Your task to perform on an android device: install app "PUBG MOBILE" Image 0: 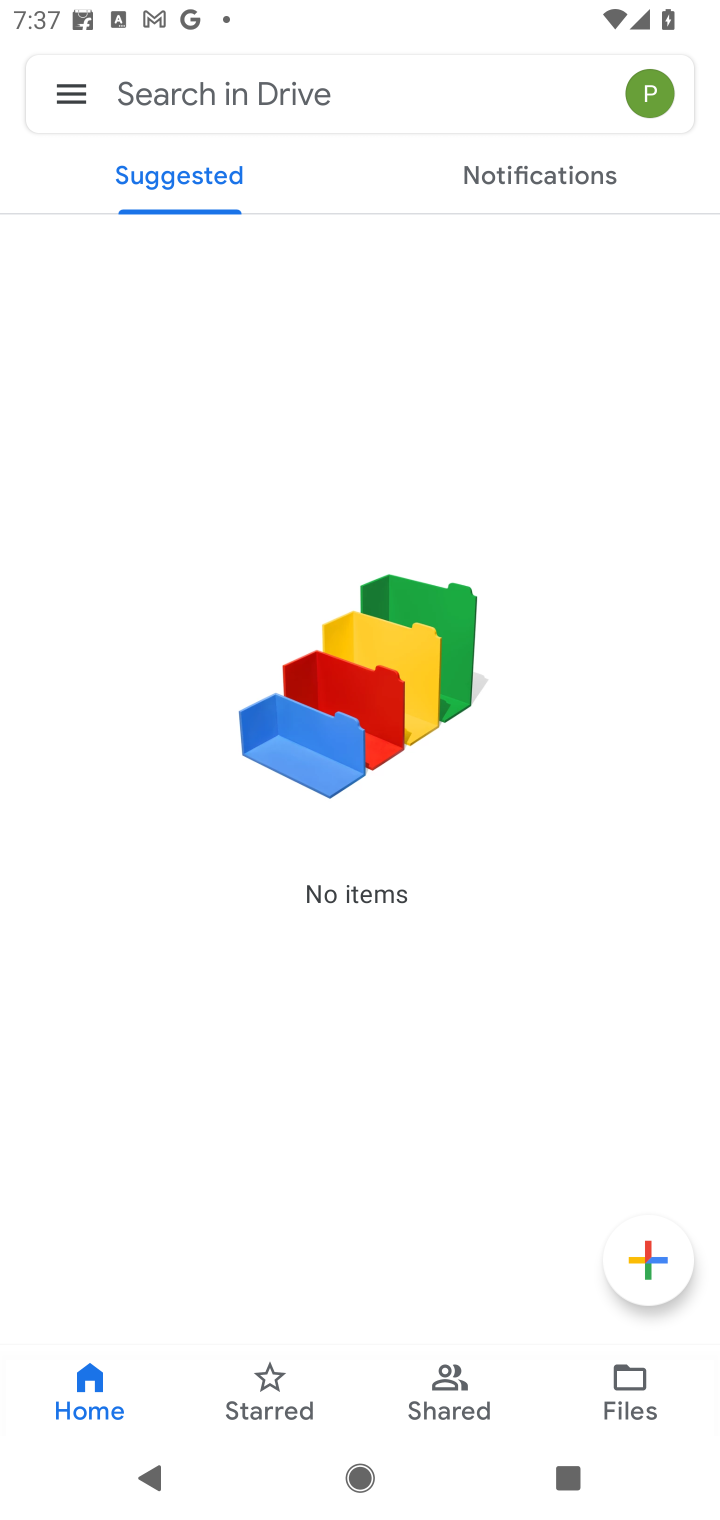
Step 0: press home button
Your task to perform on an android device: install app "PUBG MOBILE" Image 1: 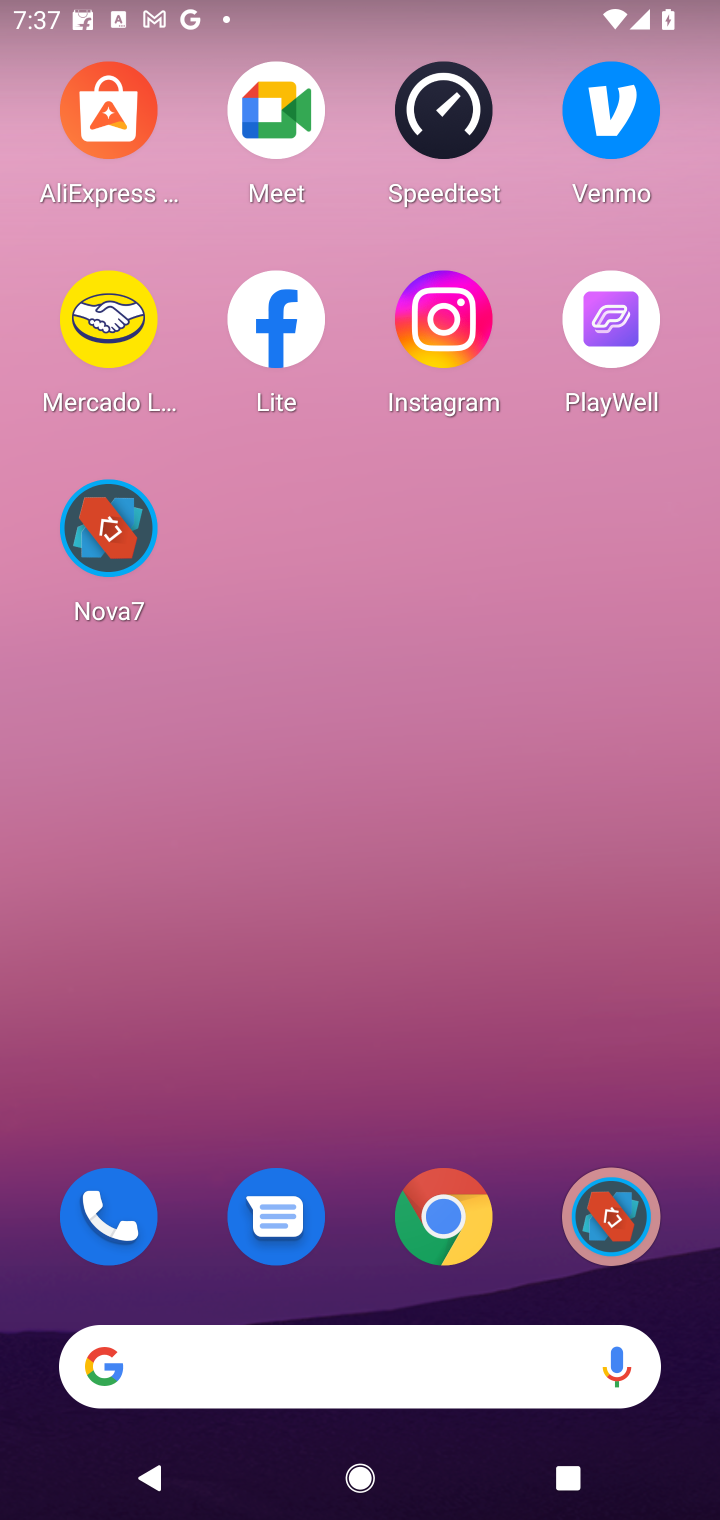
Step 1: drag from (371, 1093) to (334, 2)
Your task to perform on an android device: install app "PUBG MOBILE" Image 2: 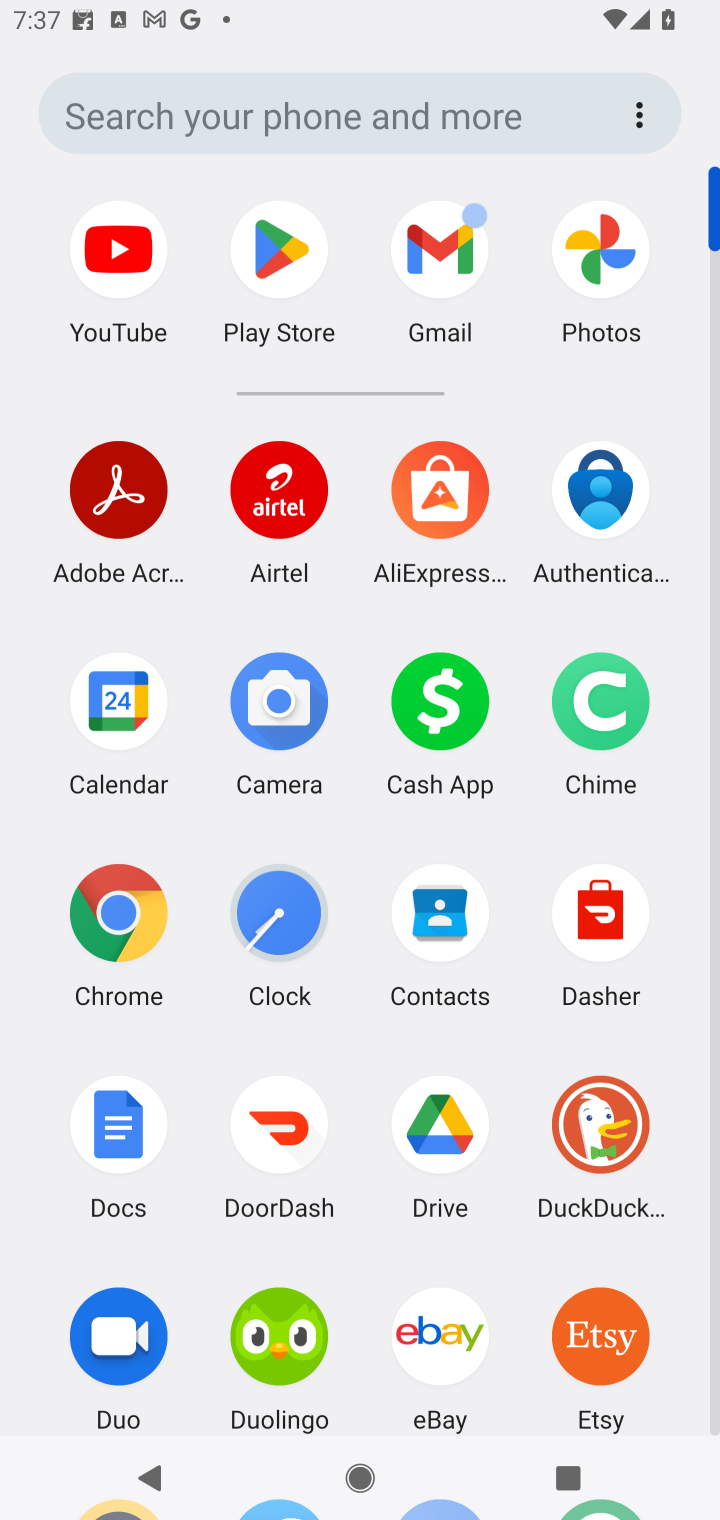
Step 2: click (308, 241)
Your task to perform on an android device: install app "PUBG MOBILE" Image 3: 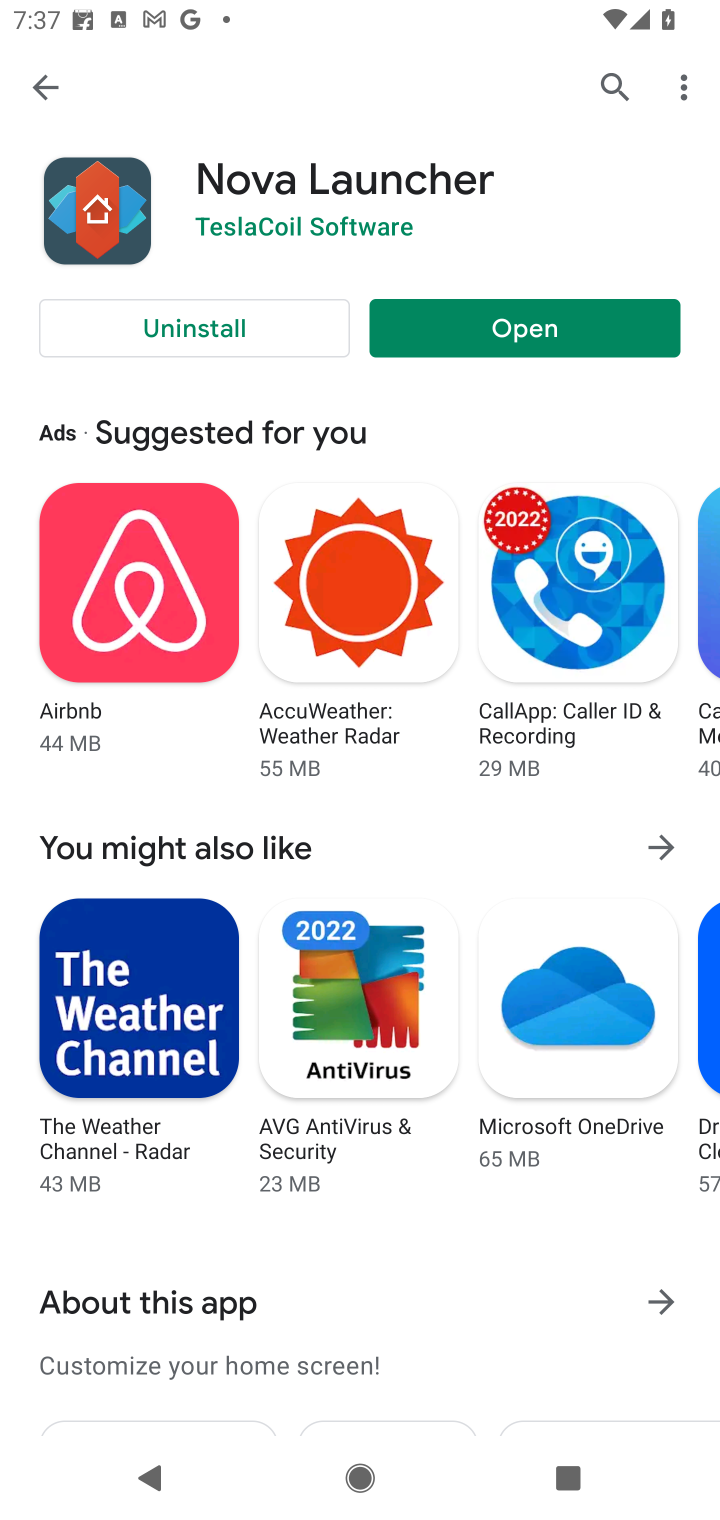
Step 3: click (622, 104)
Your task to perform on an android device: install app "PUBG MOBILE" Image 4: 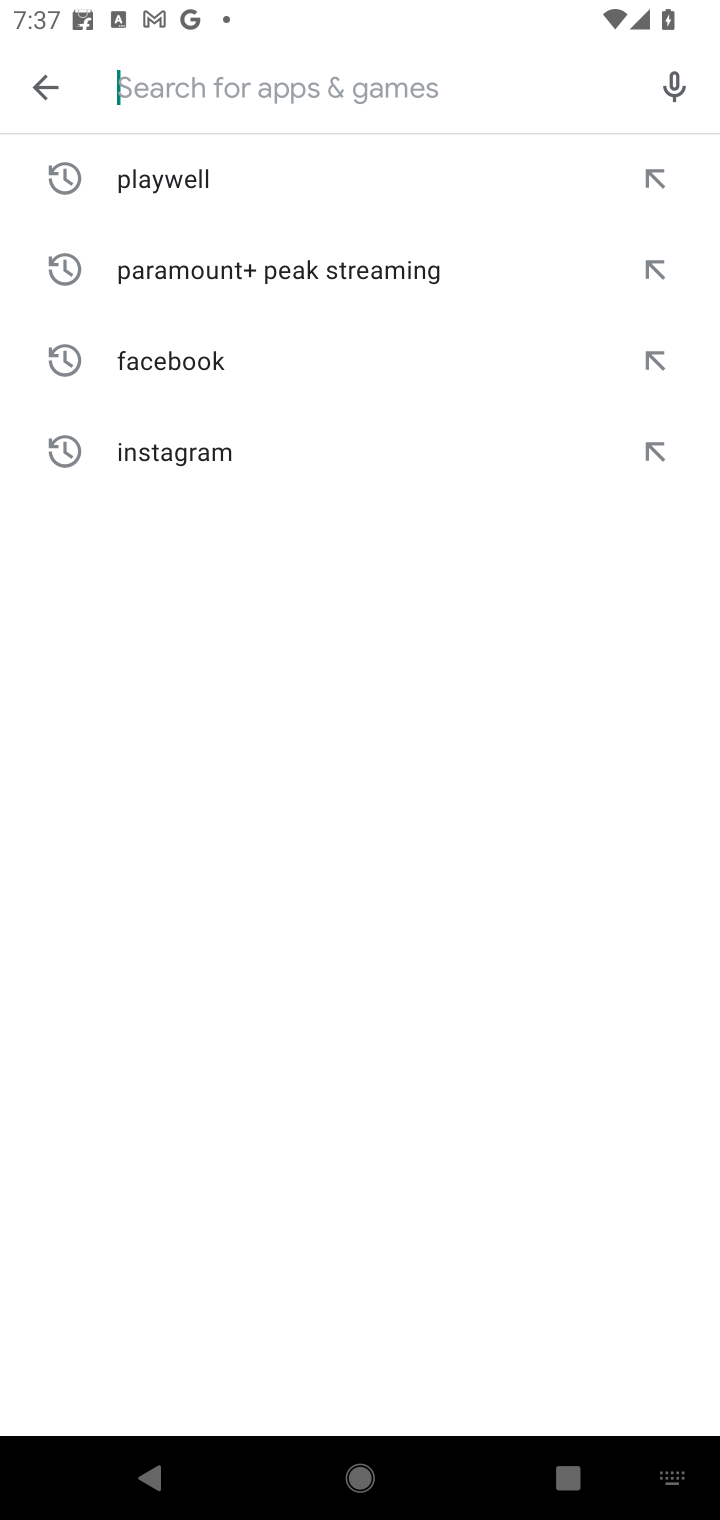
Step 4: click (445, 86)
Your task to perform on an android device: install app "PUBG MOBILE" Image 5: 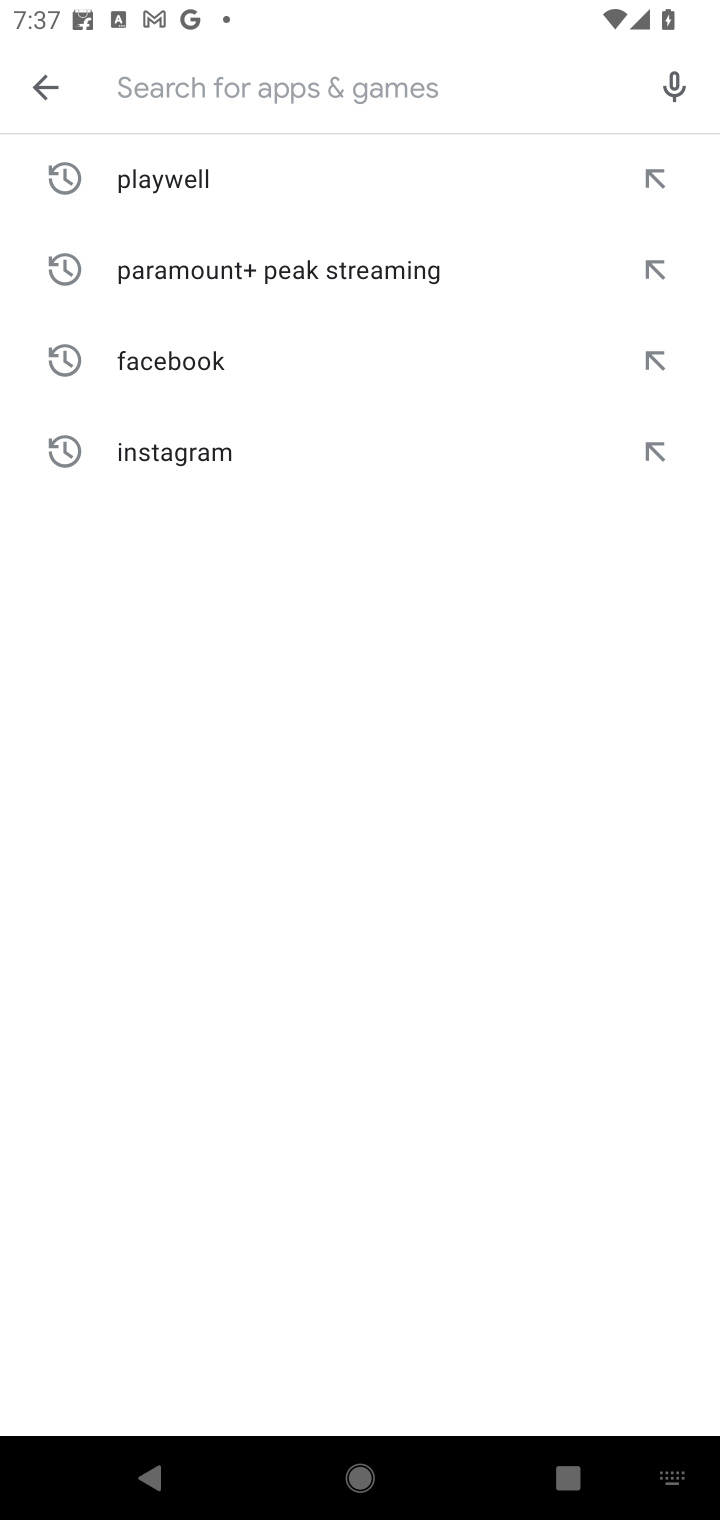
Step 5: type "PUBG MOBILE"
Your task to perform on an android device: install app "PUBG MOBILE" Image 6: 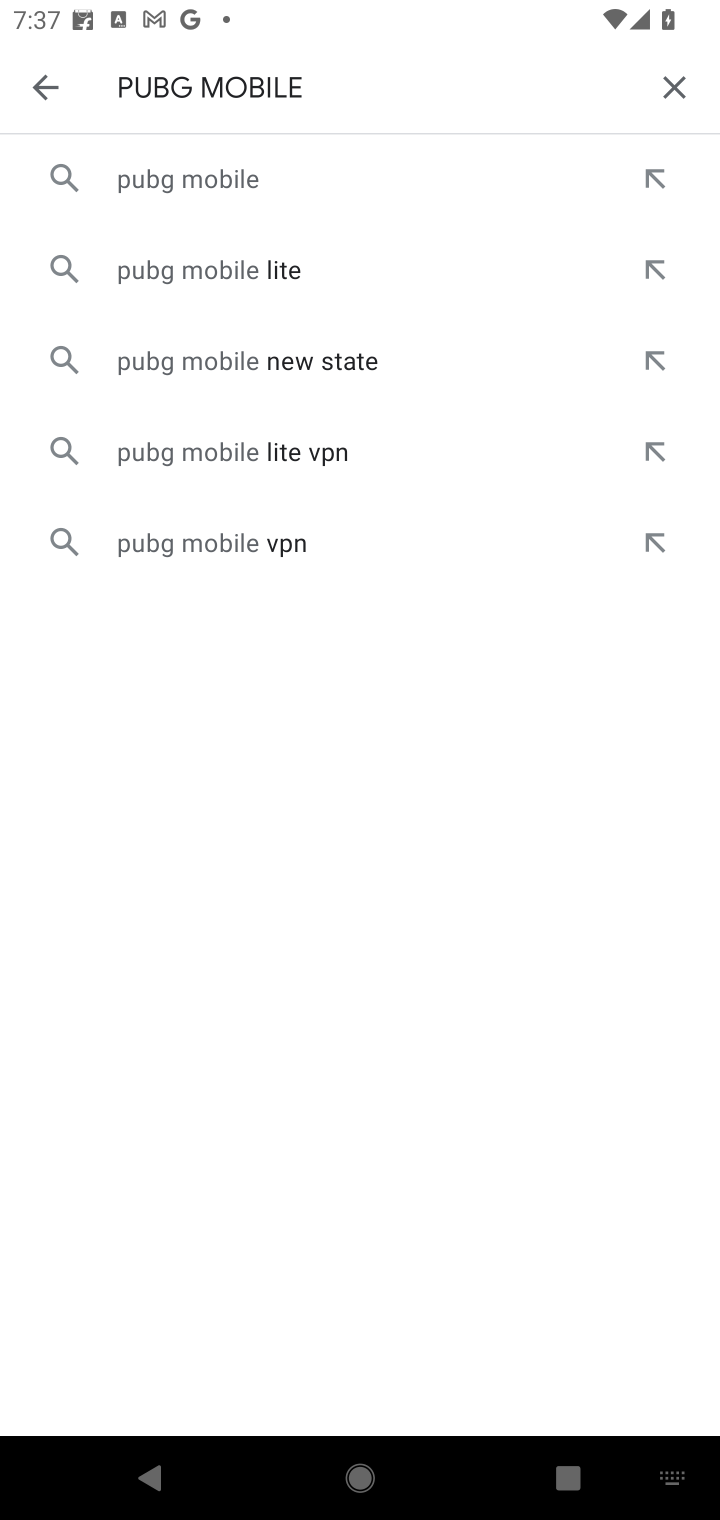
Step 6: click (322, 157)
Your task to perform on an android device: install app "PUBG MOBILE" Image 7: 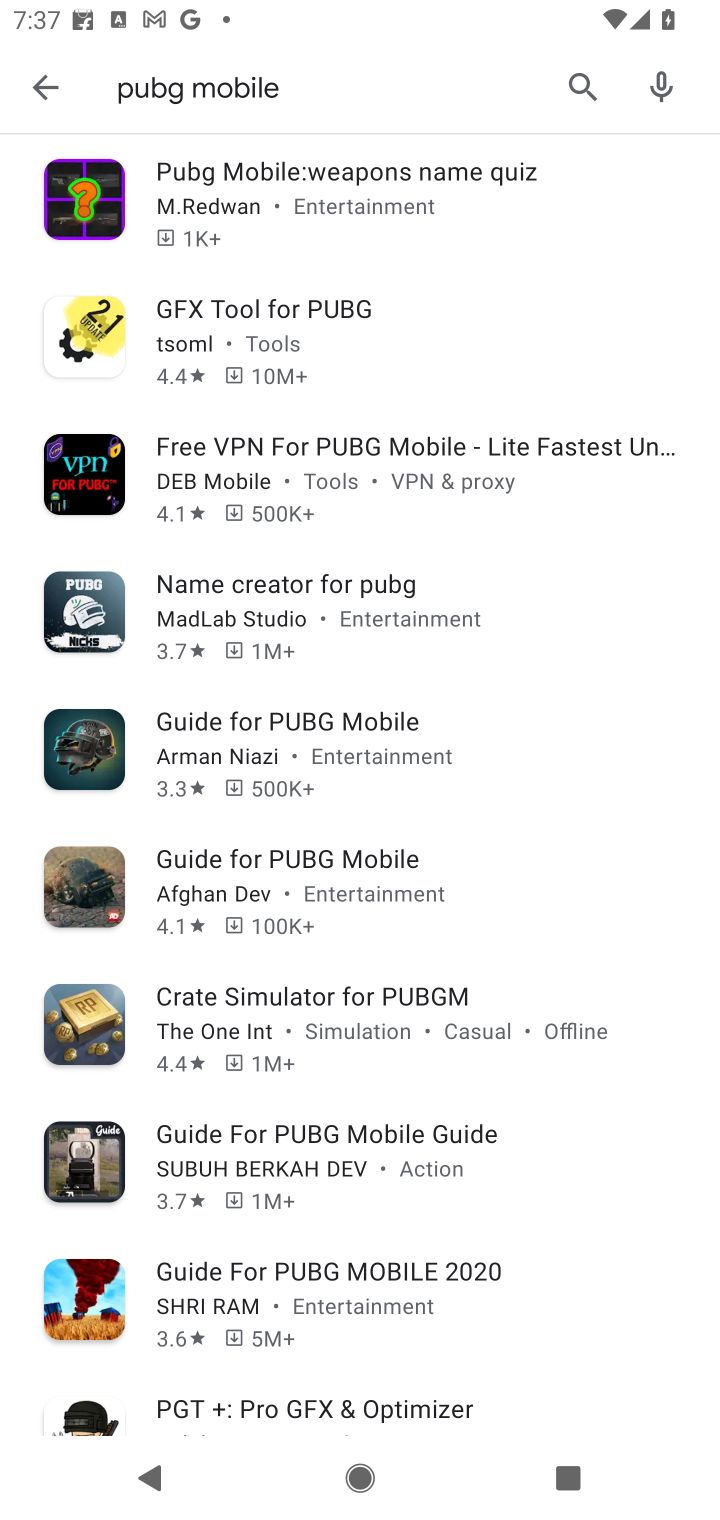
Step 7: task complete